Your task to perform on an android device: install app "DoorDash - Food Delivery" Image 0: 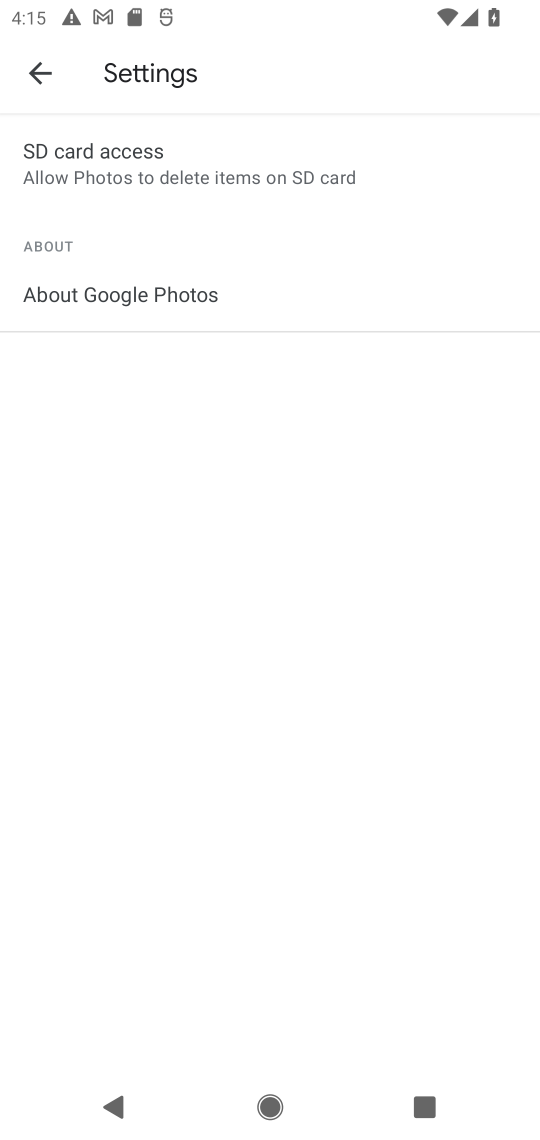
Step 0: press home button
Your task to perform on an android device: install app "DoorDash - Food Delivery" Image 1: 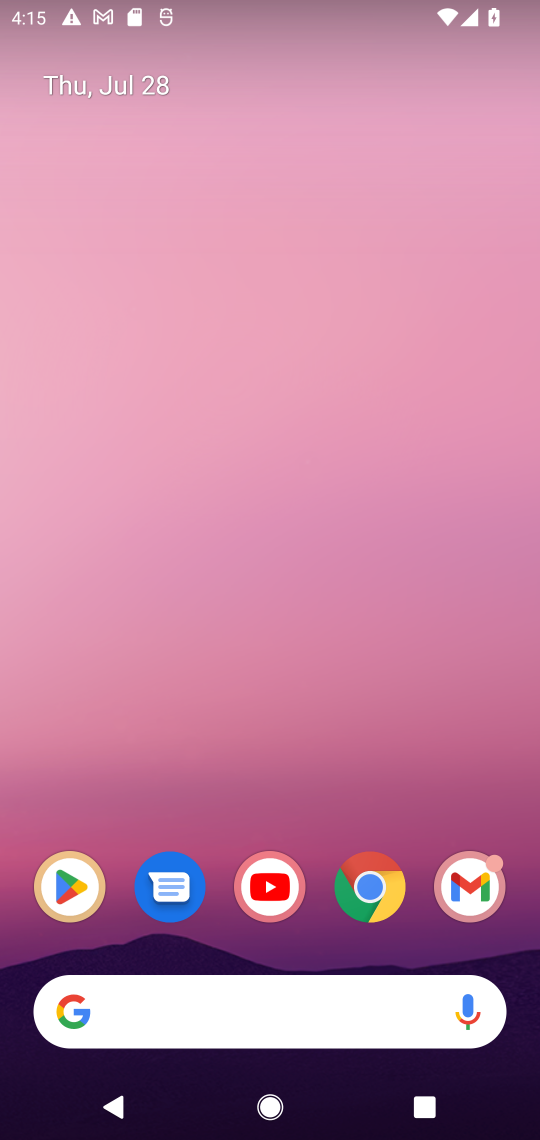
Step 1: click (68, 896)
Your task to perform on an android device: install app "DoorDash - Food Delivery" Image 2: 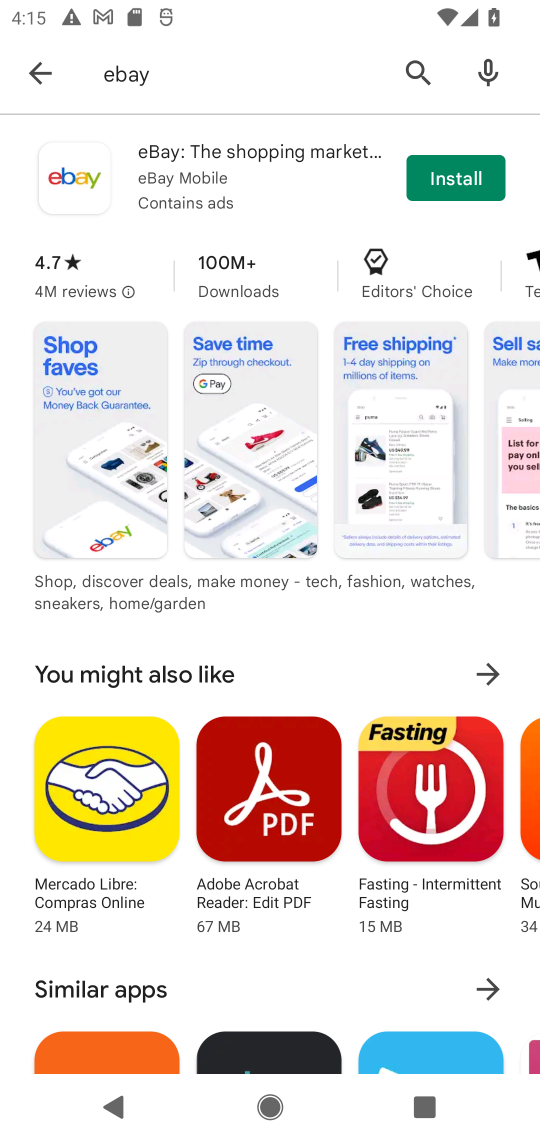
Step 2: click (171, 74)
Your task to perform on an android device: install app "DoorDash - Food Delivery" Image 3: 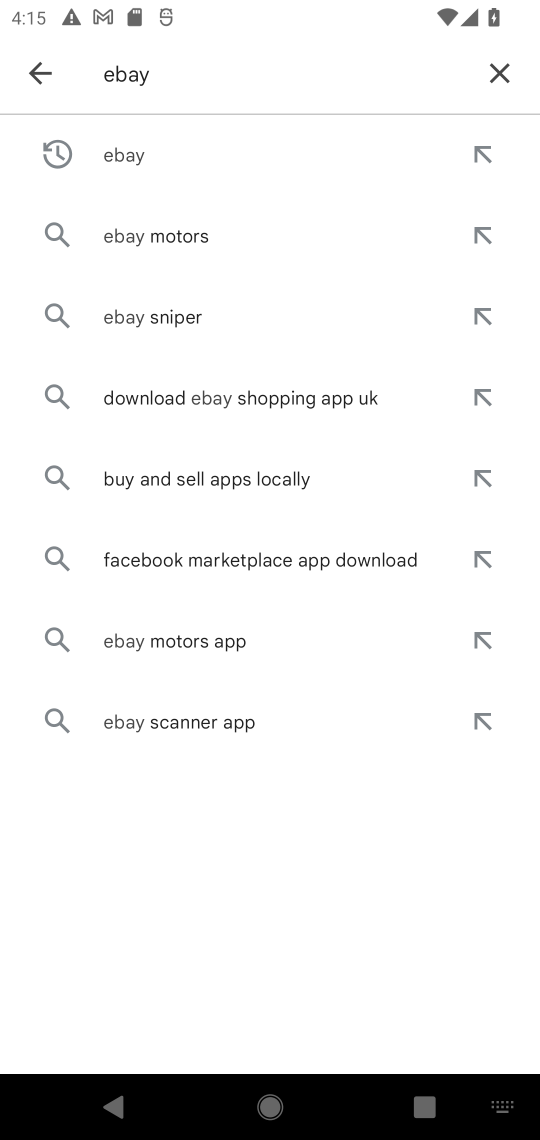
Step 3: click (506, 75)
Your task to perform on an android device: install app "DoorDash - Food Delivery" Image 4: 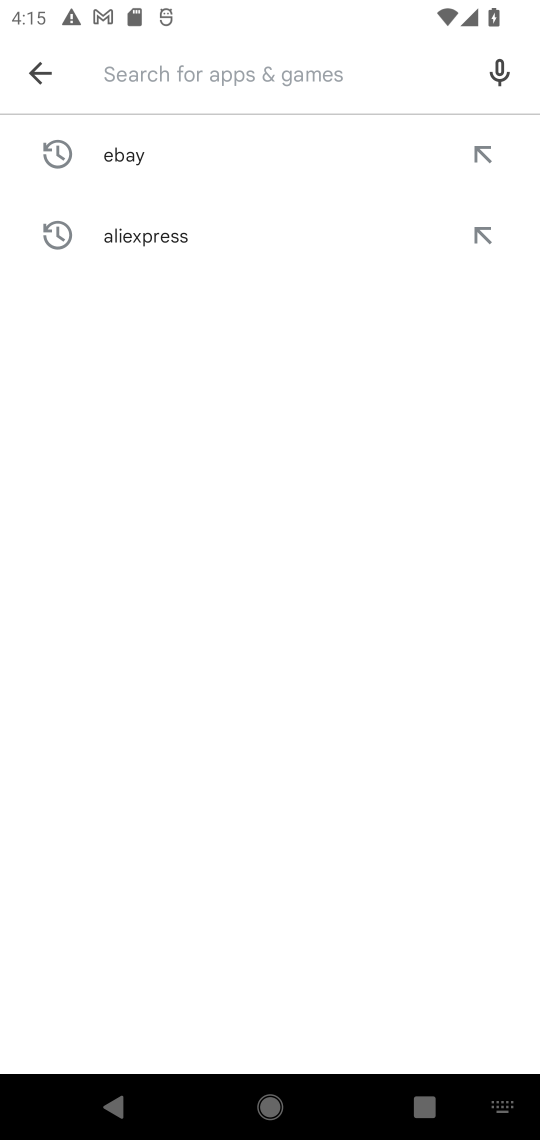
Step 4: type "DoorDash"
Your task to perform on an android device: install app "DoorDash - Food Delivery" Image 5: 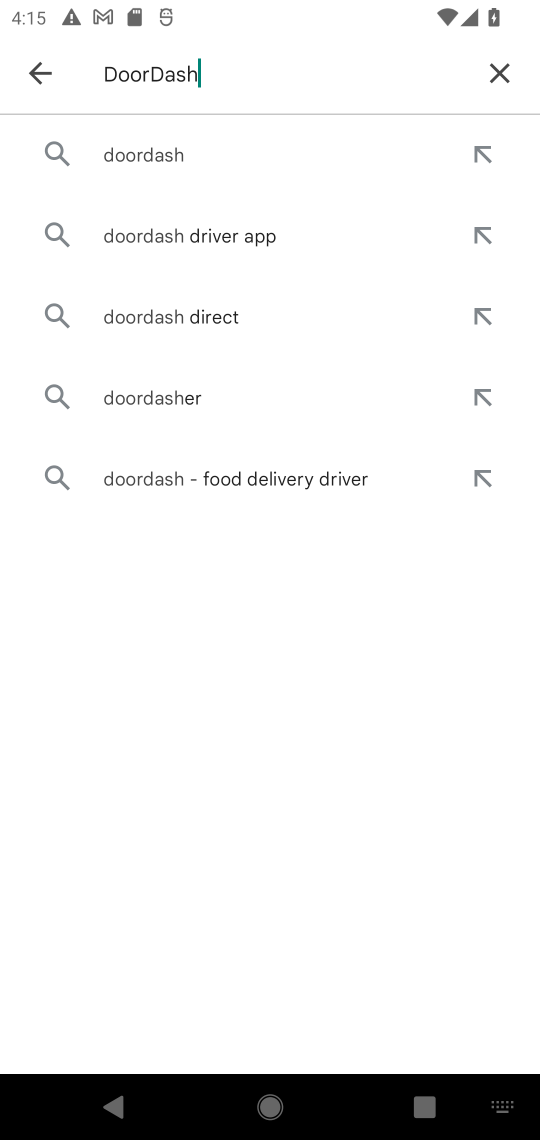
Step 5: click (176, 140)
Your task to perform on an android device: install app "DoorDash - Food Delivery" Image 6: 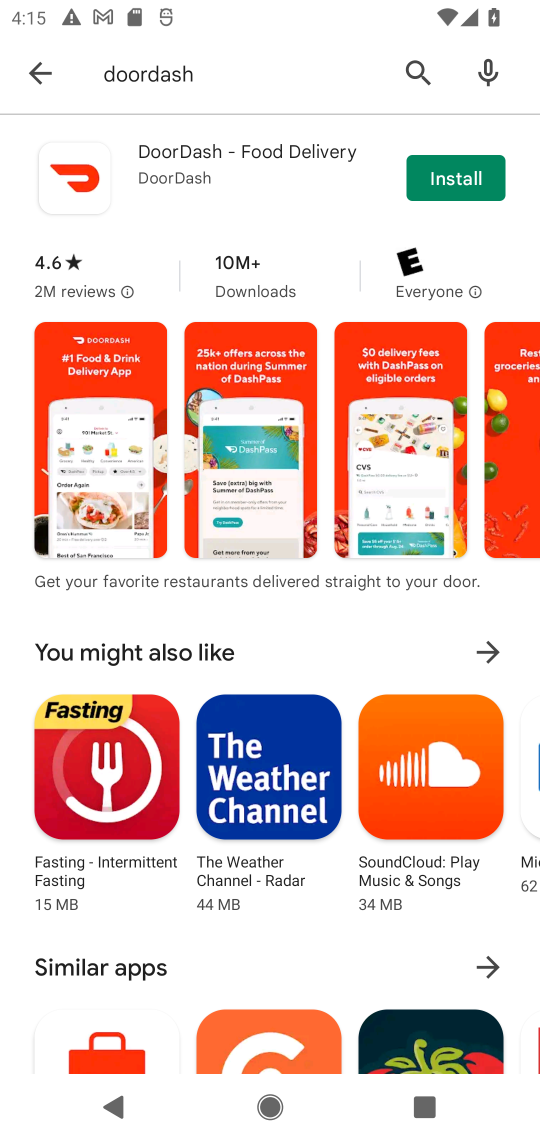
Step 6: click (481, 187)
Your task to perform on an android device: install app "DoorDash - Food Delivery" Image 7: 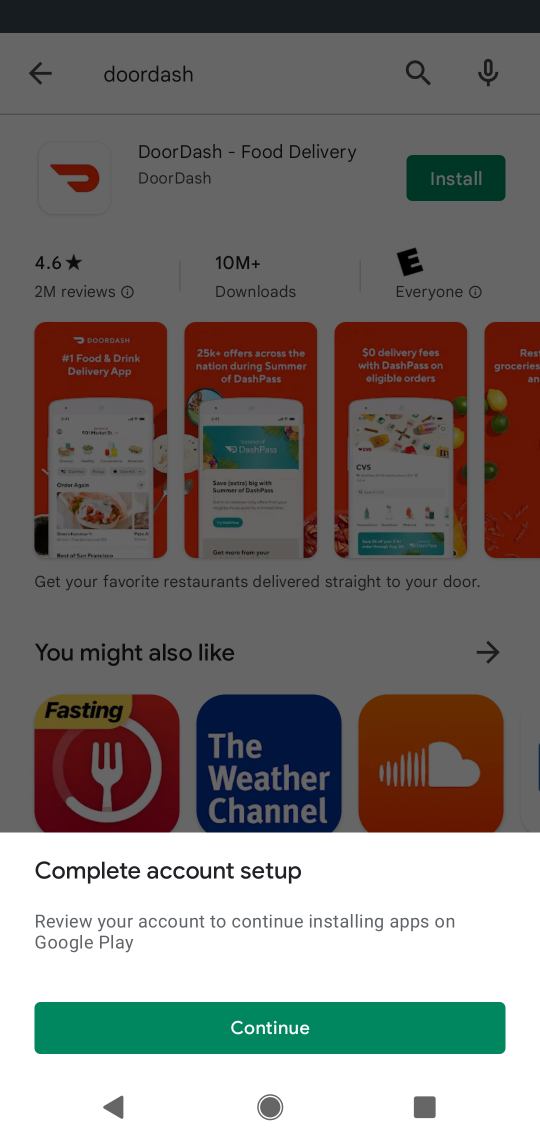
Step 7: click (177, 1025)
Your task to perform on an android device: install app "DoorDash - Food Delivery" Image 8: 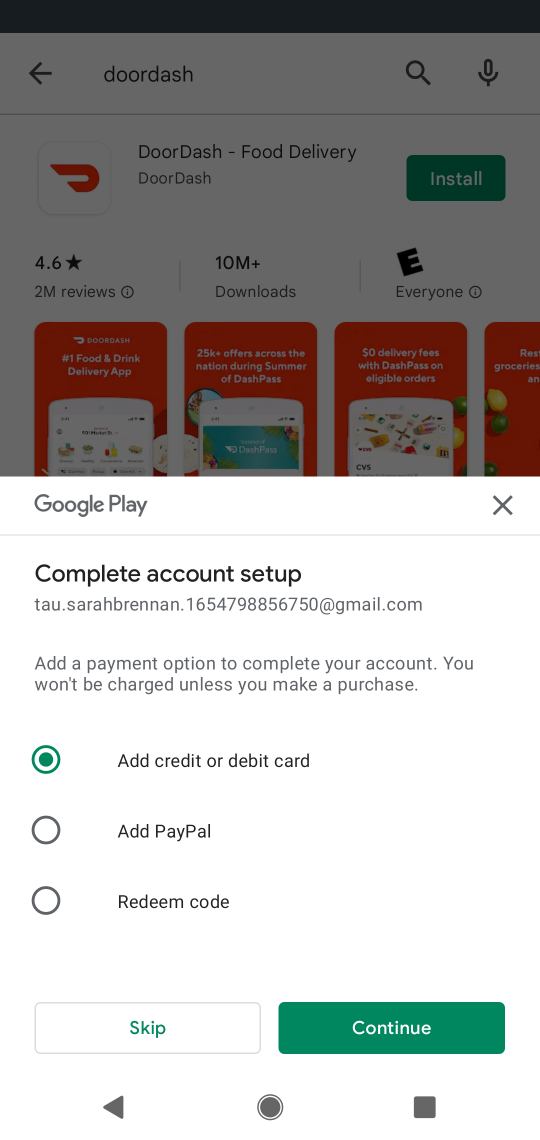
Step 8: click (175, 1025)
Your task to perform on an android device: install app "DoorDash - Food Delivery" Image 9: 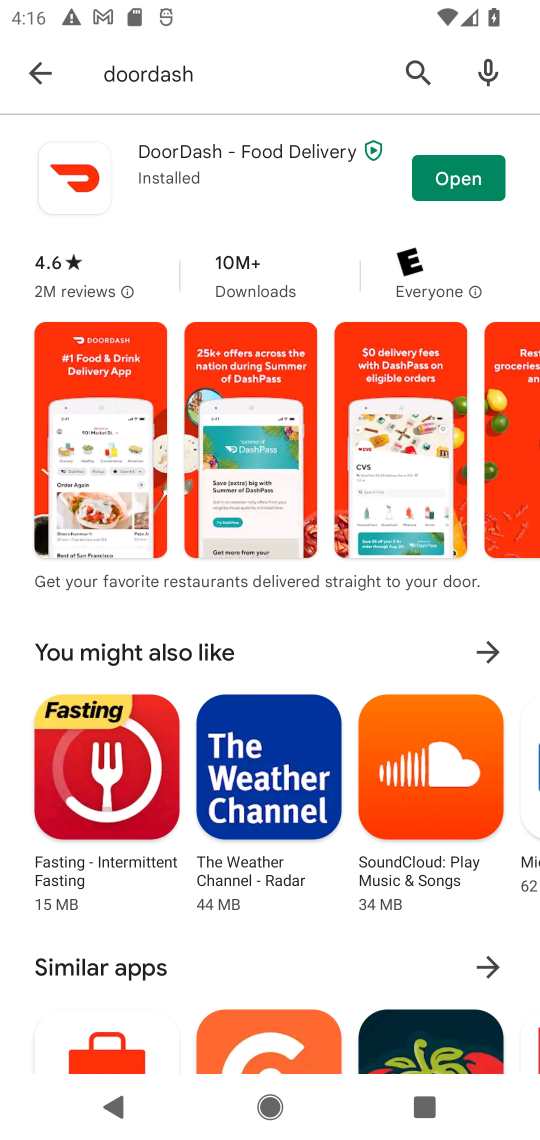
Step 9: task complete